Your task to perform on an android device: delete the emails in spam in the gmail app Image 0: 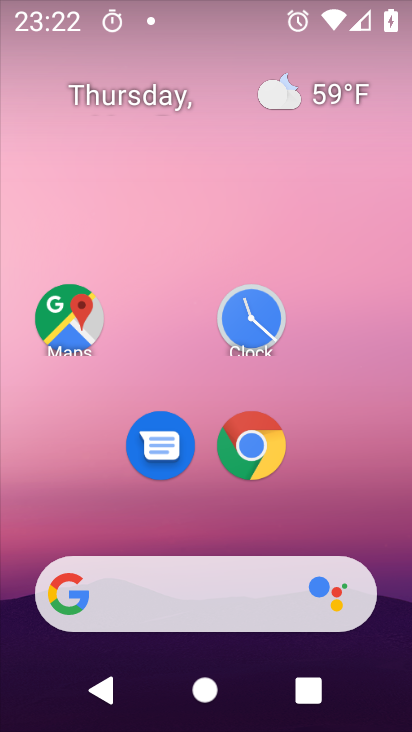
Step 0: drag from (213, 565) to (195, 21)
Your task to perform on an android device: delete the emails in spam in the gmail app Image 1: 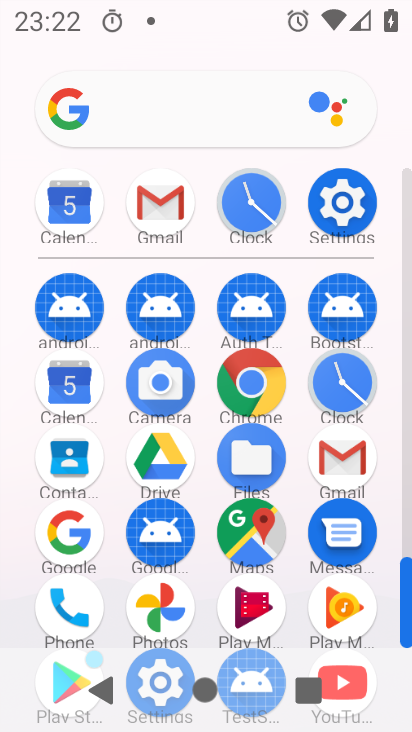
Step 1: click (332, 456)
Your task to perform on an android device: delete the emails in spam in the gmail app Image 2: 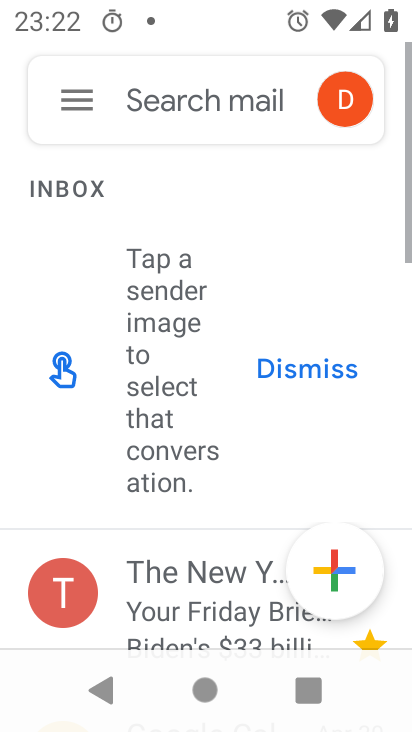
Step 2: click (72, 110)
Your task to perform on an android device: delete the emails in spam in the gmail app Image 3: 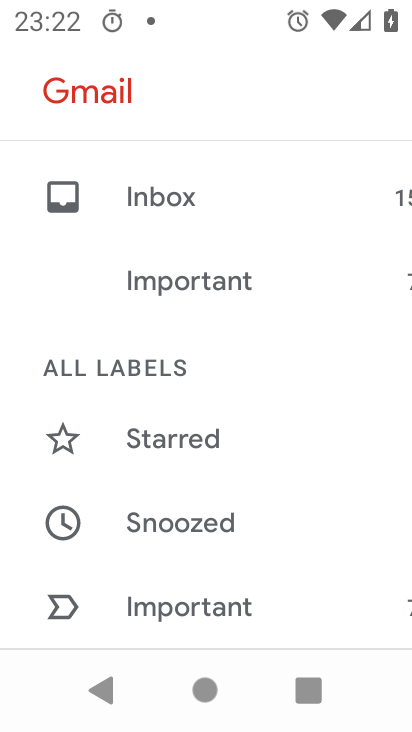
Step 3: drag from (230, 577) to (220, 51)
Your task to perform on an android device: delete the emails in spam in the gmail app Image 4: 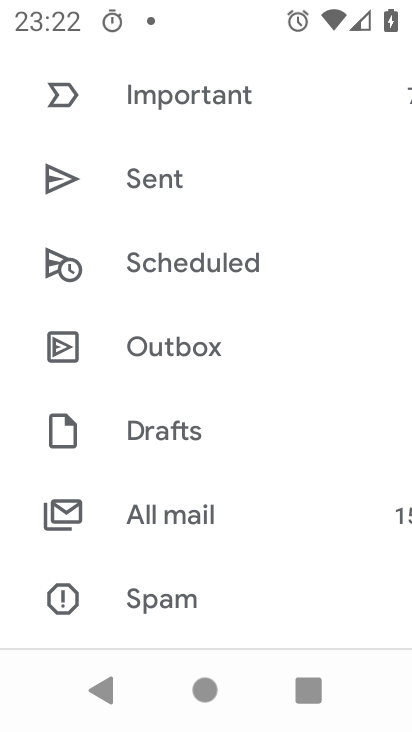
Step 4: click (186, 602)
Your task to perform on an android device: delete the emails in spam in the gmail app Image 5: 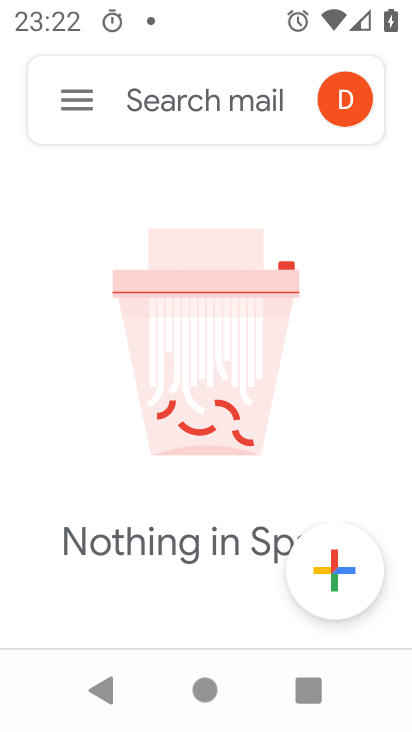
Step 5: task complete